Your task to perform on an android device: Go to eBay Image 0: 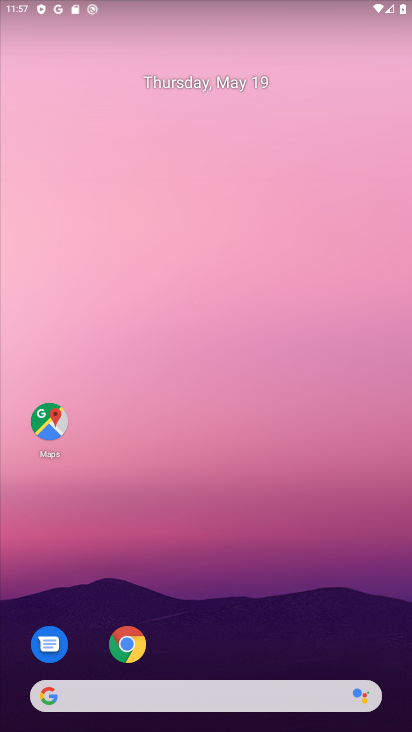
Step 0: click (123, 642)
Your task to perform on an android device: Go to eBay Image 1: 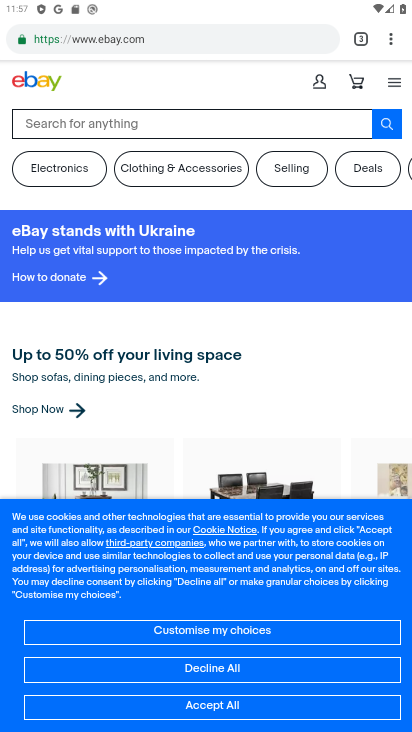
Step 1: task complete